Your task to perform on an android device: open device folders in google photos Image 0: 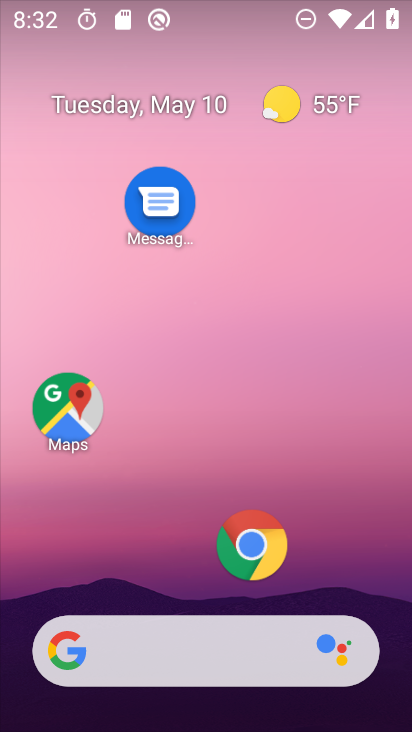
Step 0: drag from (190, 549) to (289, 17)
Your task to perform on an android device: open device folders in google photos Image 1: 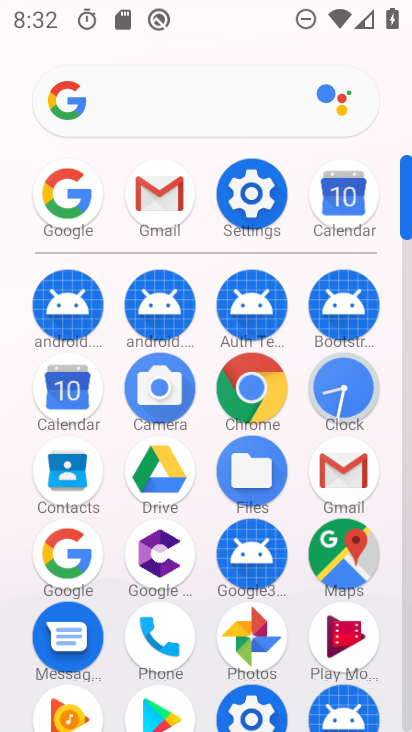
Step 1: click (244, 623)
Your task to perform on an android device: open device folders in google photos Image 2: 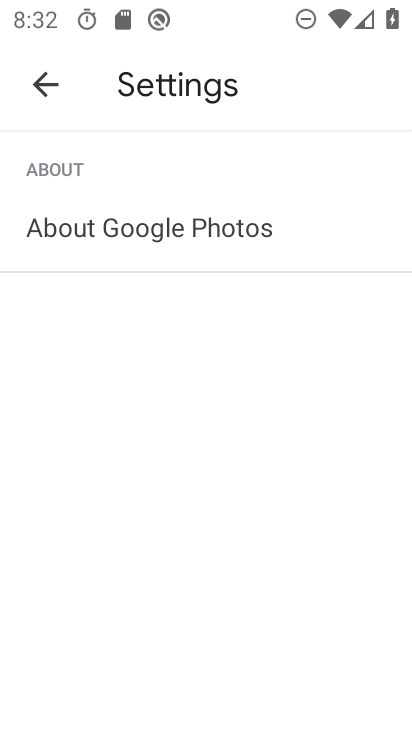
Step 2: click (38, 90)
Your task to perform on an android device: open device folders in google photos Image 3: 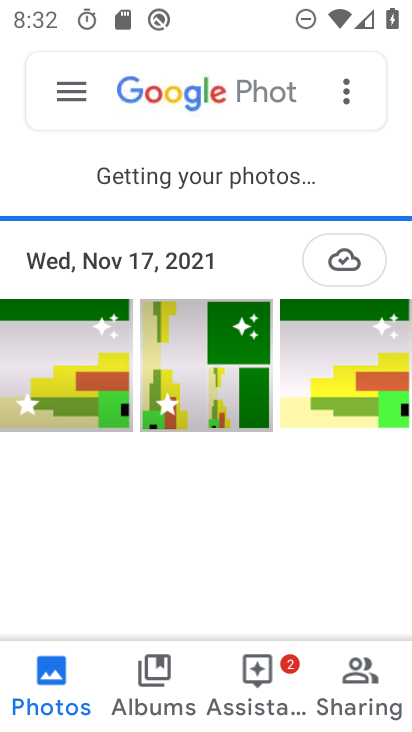
Step 3: click (68, 79)
Your task to perform on an android device: open device folders in google photos Image 4: 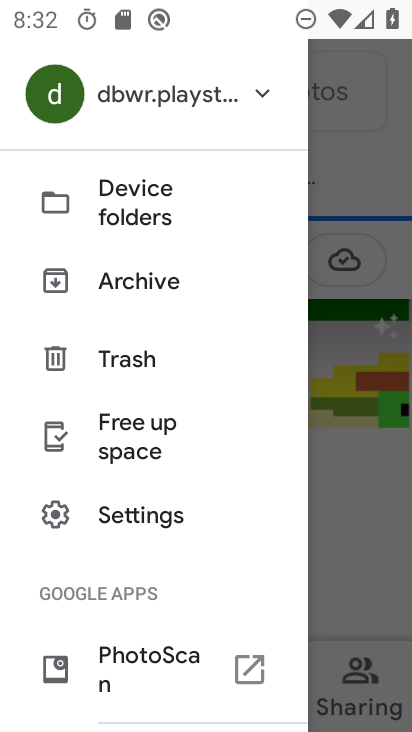
Step 4: click (103, 195)
Your task to perform on an android device: open device folders in google photos Image 5: 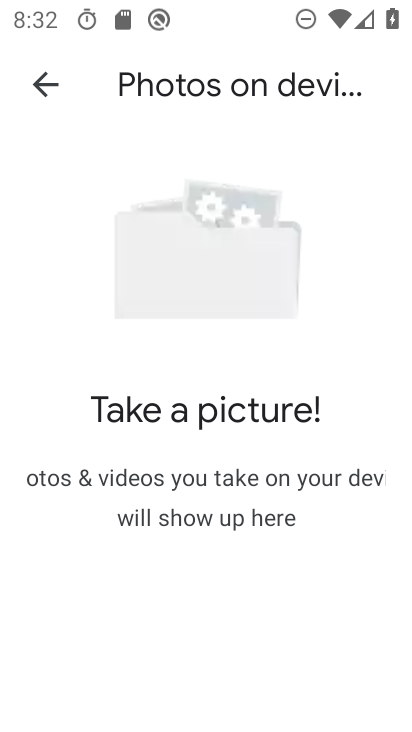
Step 5: task complete